Your task to perform on an android device: Is it going to rain tomorrow? Image 0: 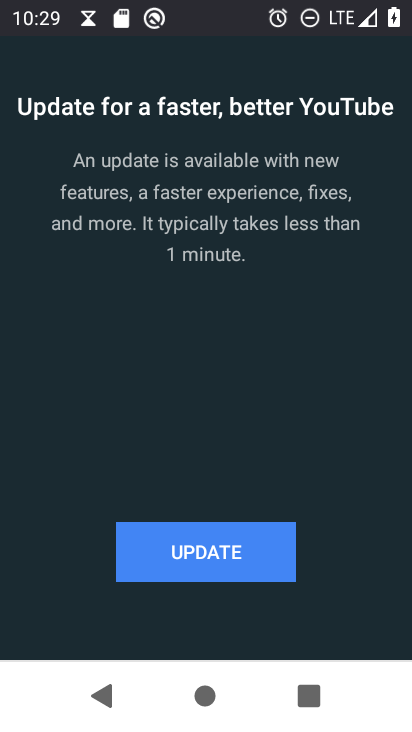
Step 0: press back button
Your task to perform on an android device: Is it going to rain tomorrow? Image 1: 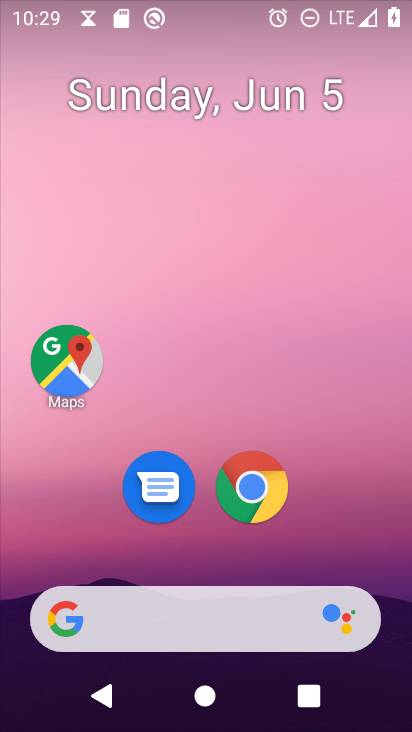
Step 1: click (251, 468)
Your task to perform on an android device: Is it going to rain tomorrow? Image 2: 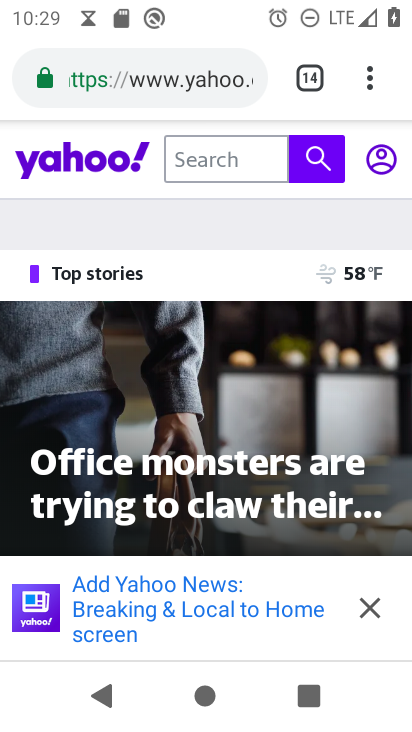
Step 2: click (362, 68)
Your task to perform on an android device: Is it going to rain tomorrow? Image 3: 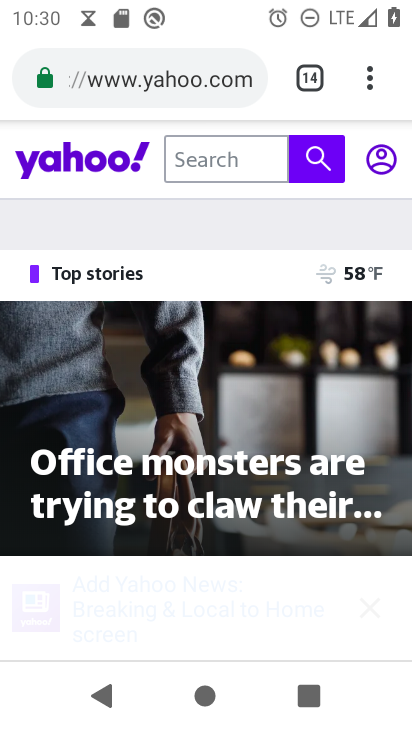
Step 3: click (355, 68)
Your task to perform on an android device: Is it going to rain tomorrow? Image 4: 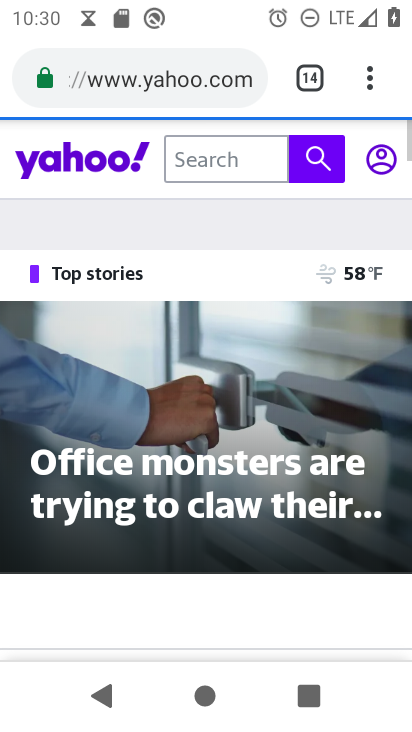
Step 4: click (358, 73)
Your task to perform on an android device: Is it going to rain tomorrow? Image 5: 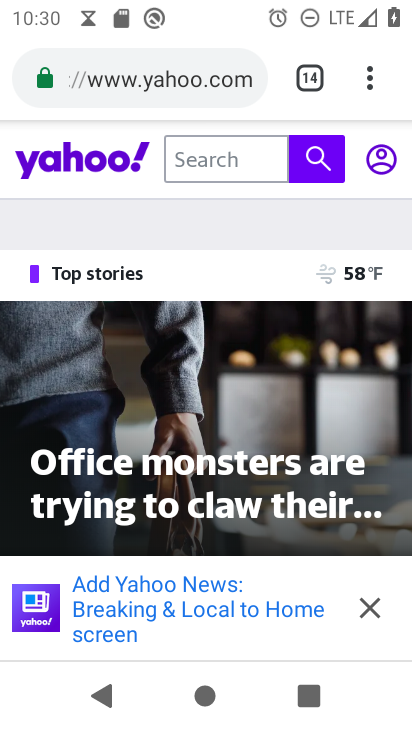
Step 5: click (368, 71)
Your task to perform on an android device: Is it going to rain tomorrow? Image 6: 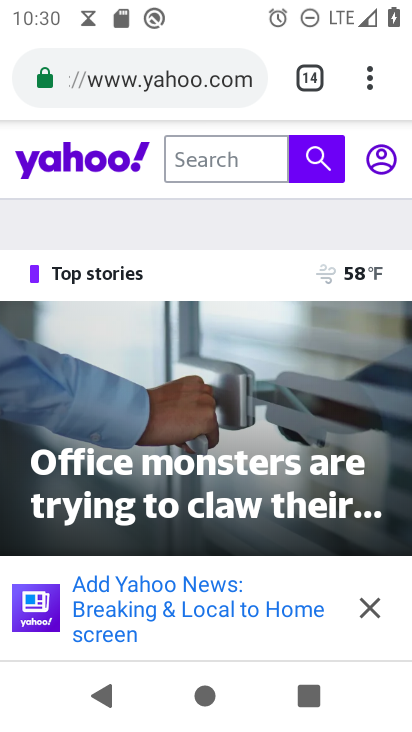
Step 6: click (357, 77)
Your task to perform on an android device: Is it going to rain tomorrow? Image 7: 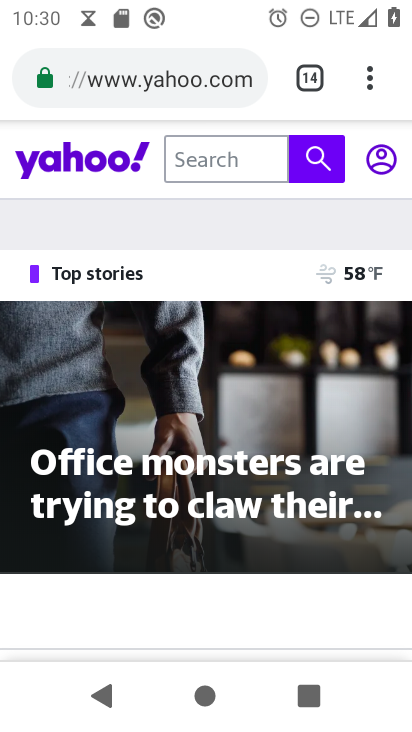
Step 7: click (366, 71)
Your task to perform on an android device: Is it going to rain tomorrow? Image 8: 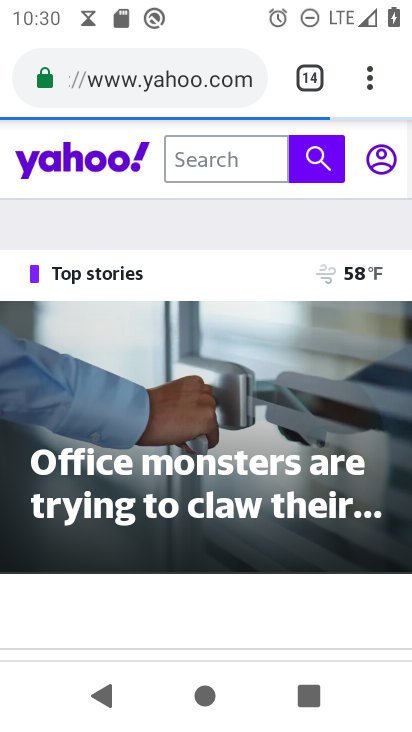
Step 8: click (364, 68)
Your task to perform on an android device: Is it going to rain tomorrow? Image 9: 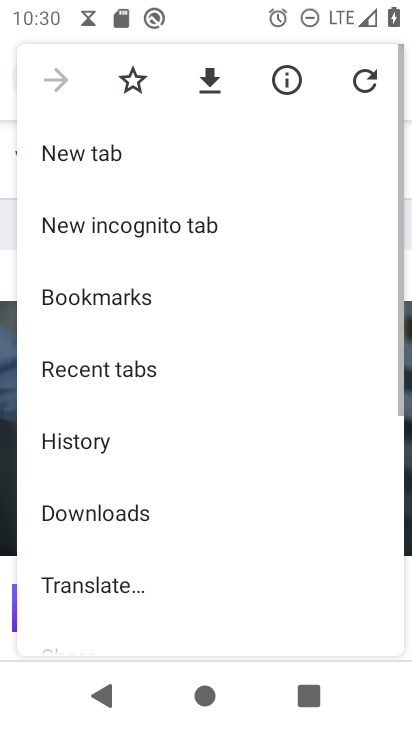
Step 9: click (127, 154)
Your task to perform on an android device: Is it going to rain tomorrow? Image 10: 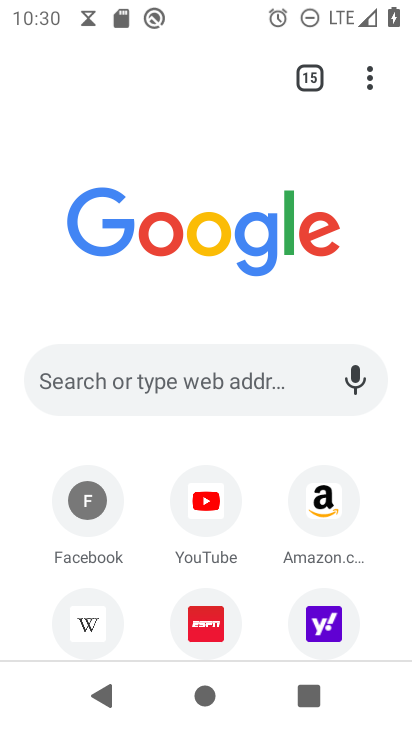
Step 10: click (184, 375)
Your task to perform on an android device: Is it going to rain tomorrow? Image 11: 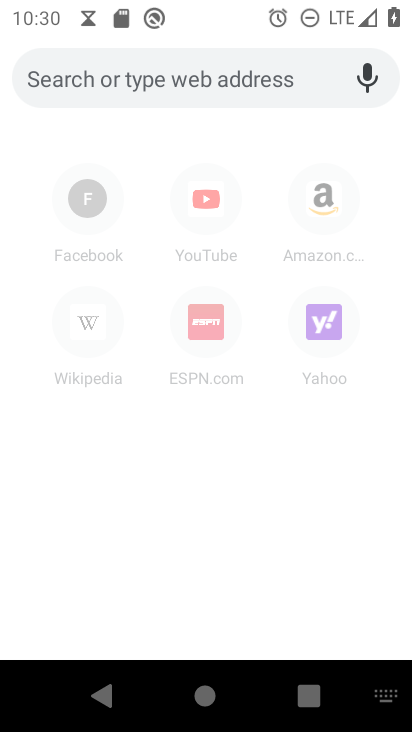
Step 11: type "Is it going to rain tomorrow?"
Your task to perform on an android device: Is it going to rain tomorrow? Image 12: 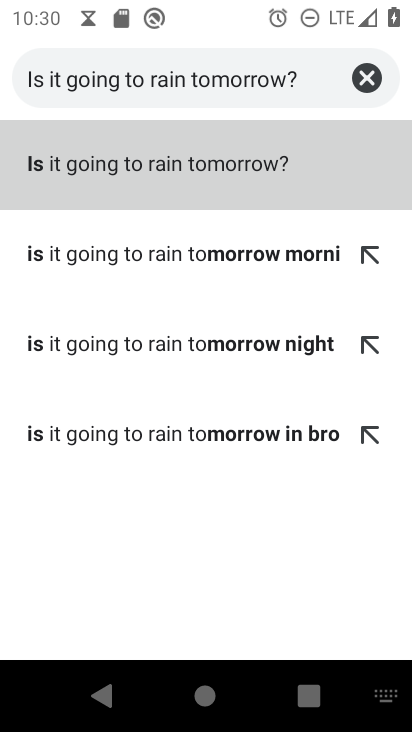
Step 12: click (243, 149)
Your task to perform on an android device: Is it going to rain tomorrow? Image 13: 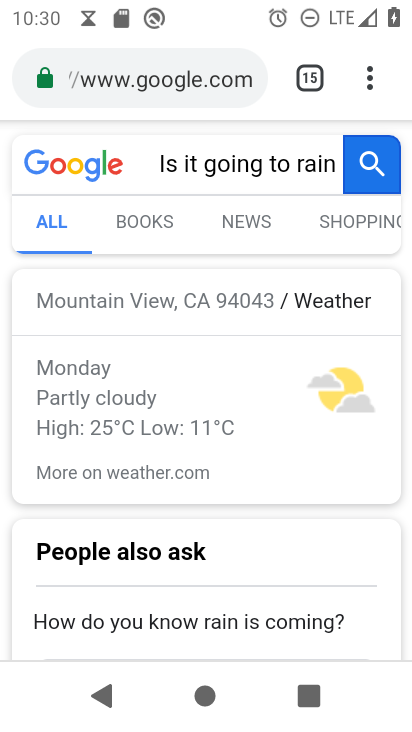
Step 13: task complete